Your task to perform on an android device: Open CNN.com Image 0: 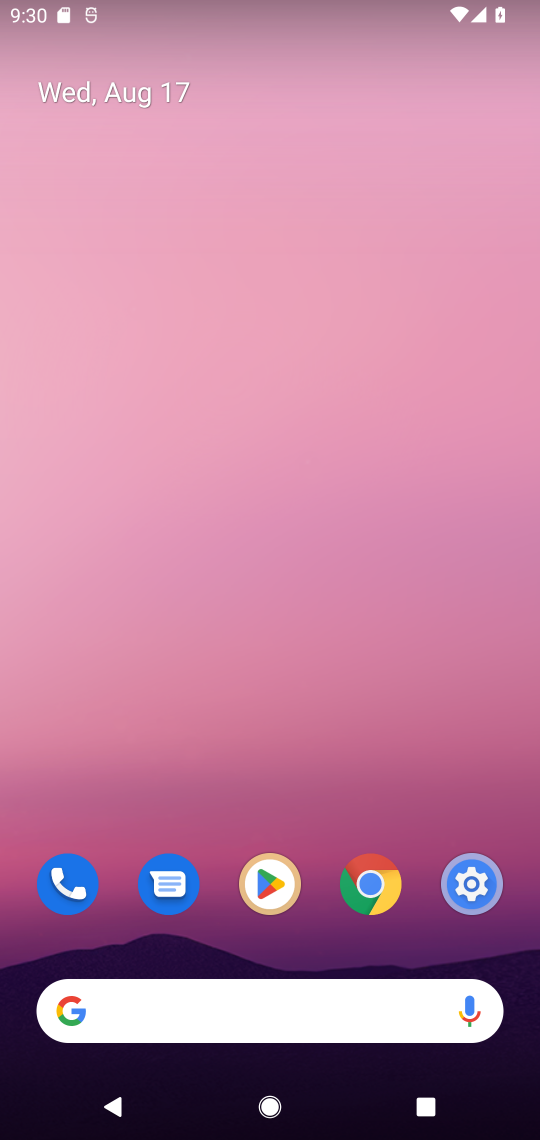
Step 0: click (159, 1006)
Your task to perform on an android device: Open CNN.com Image 1: 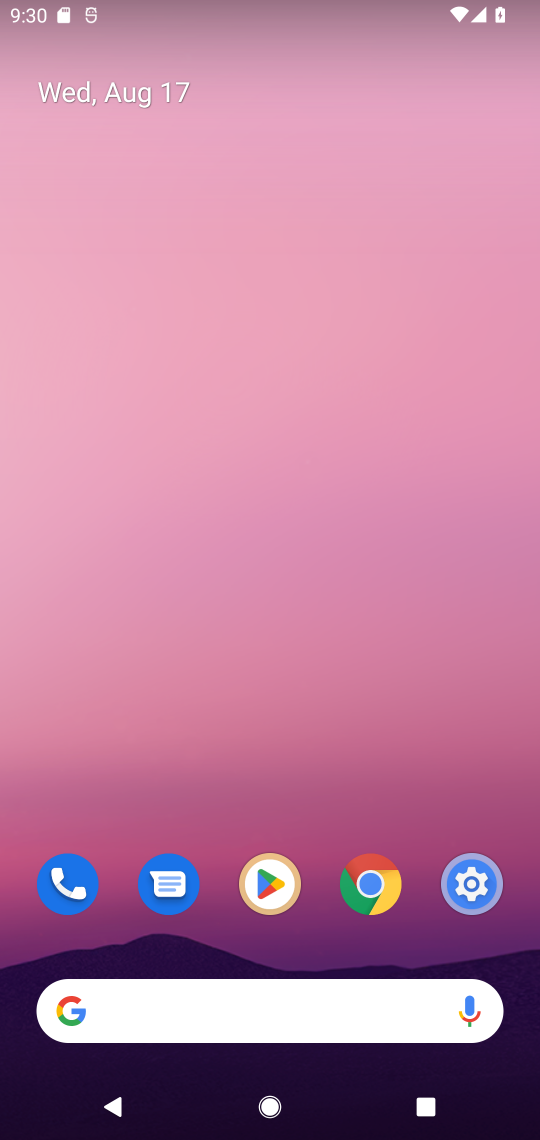
Step 1: click (158, 1008)
Your task to perform on an android device: Open CNN.com Image 2: 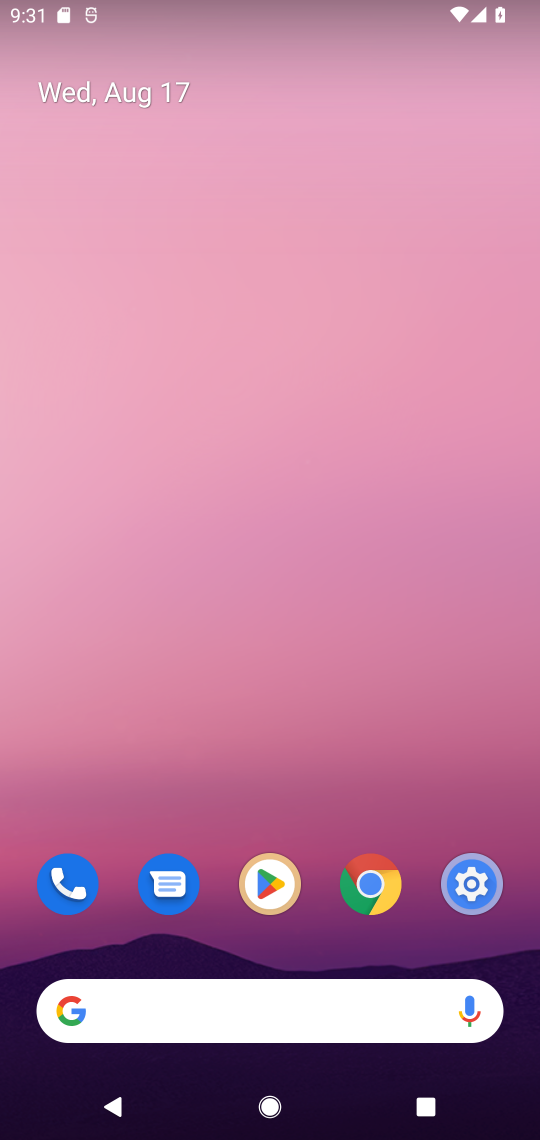
Step 2: click (158, 1008)
Your task to perform on an android device: Open CNN.com Image 3: 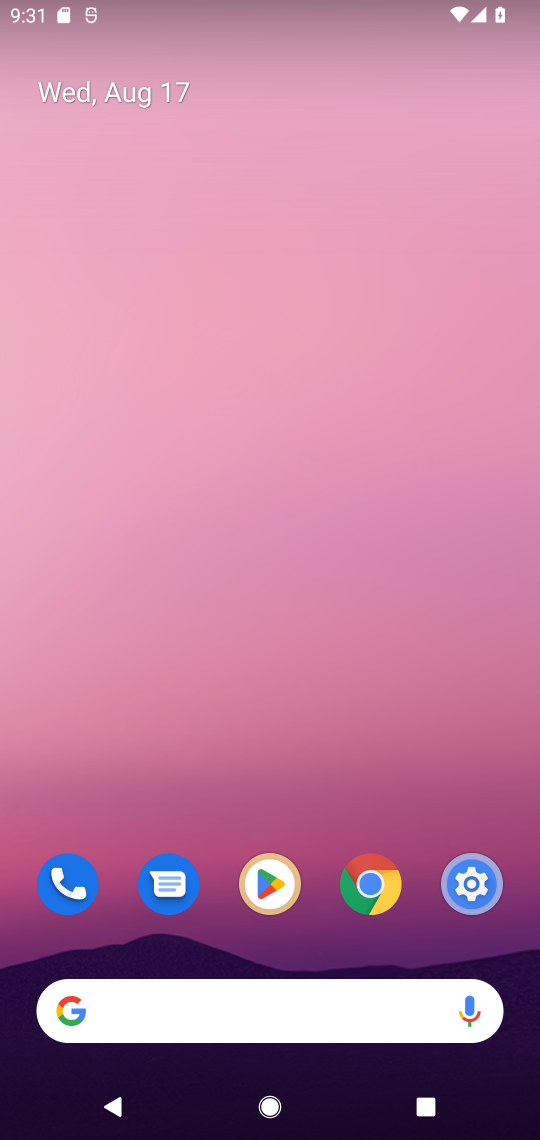
Step 3: click (158, 1008)
Your task to perform on an android device: Open CNN.com Image 4: 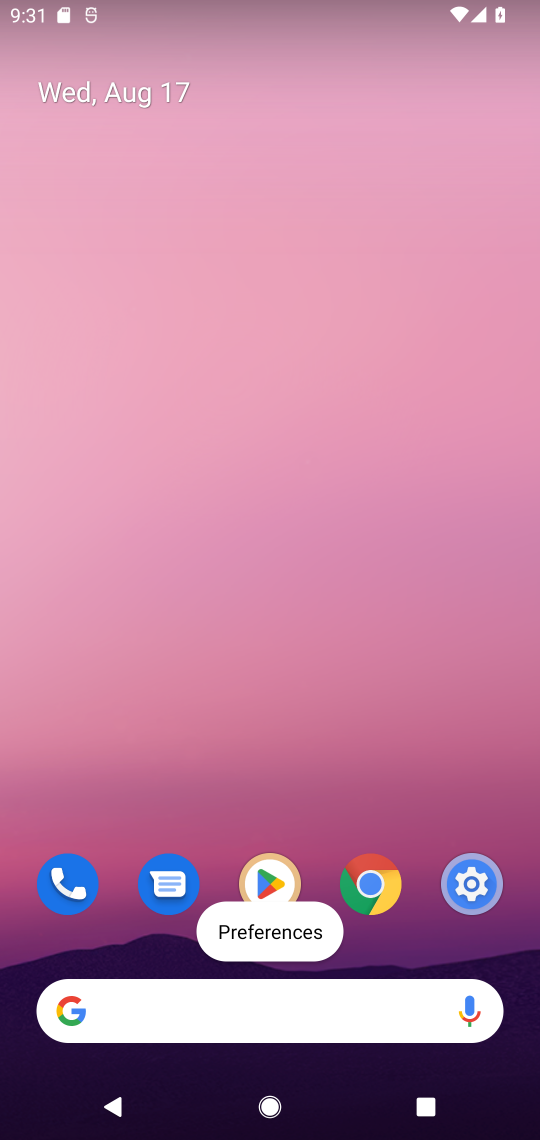
Step 4: click (158, 1008)
Your task to perform on an android device: Open CNN.com Image 5: 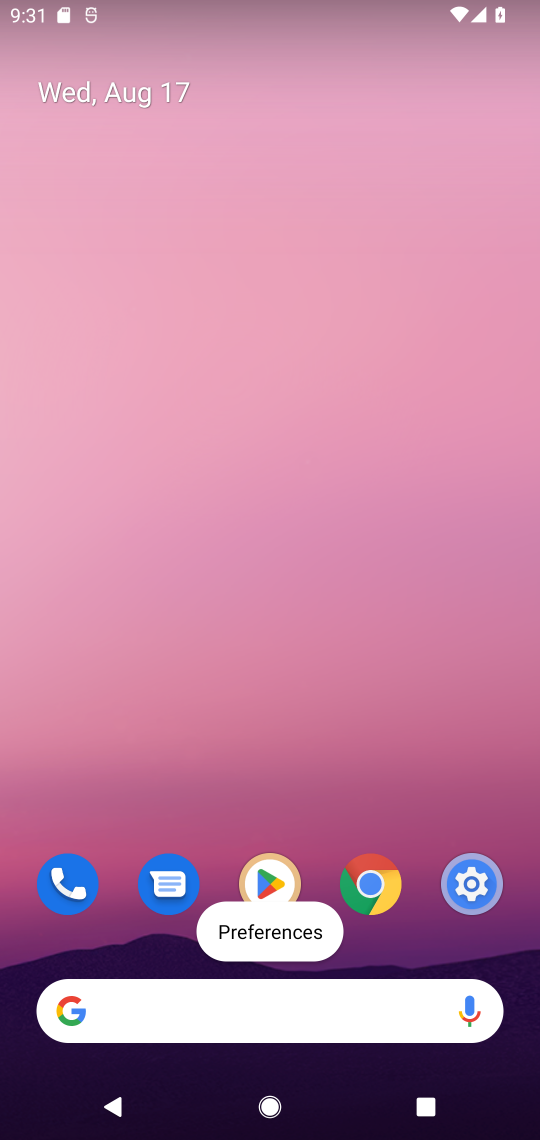
Step 5: click (247, 1017)
Your task to perform on an android device: Open CNN.com Image 6: 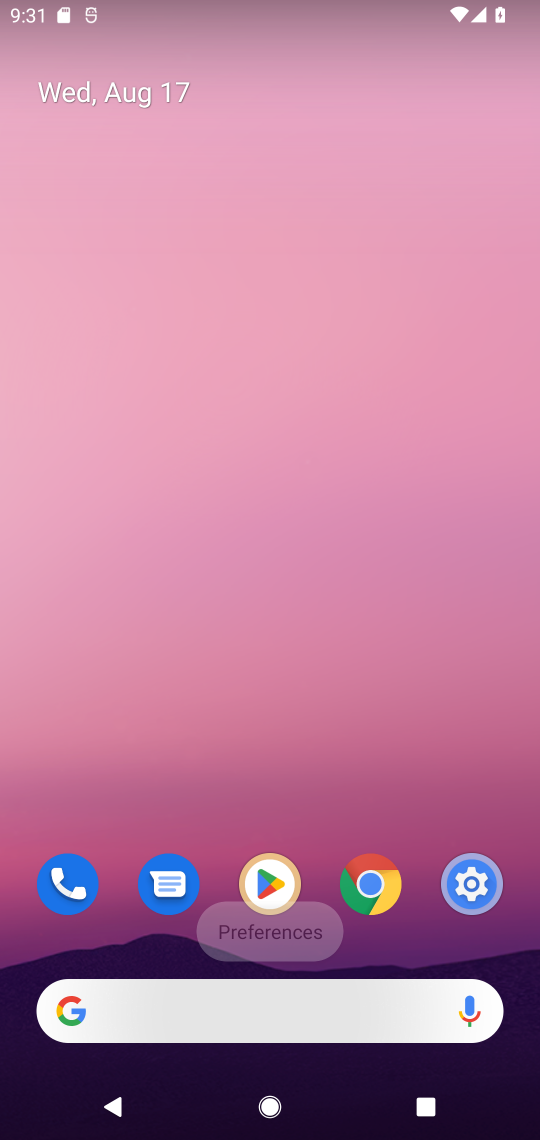
Step 6: click (247, 1017)
Your task to perform on an android device: Open CNN.com Image 7: 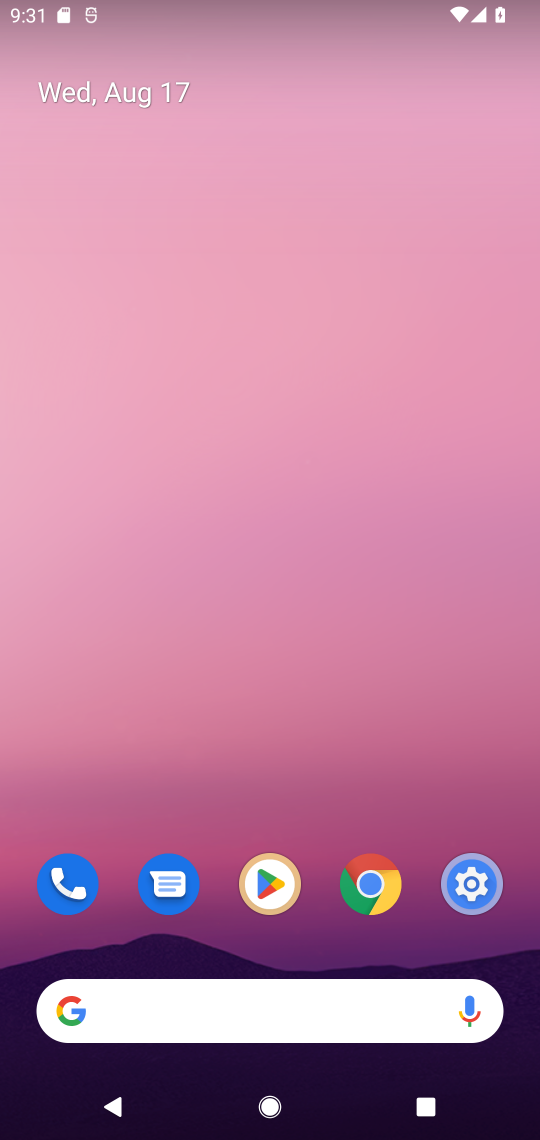
Step 7: click (247, 1017)
Your task to perform on an android device: Open CNN.com Image 8: 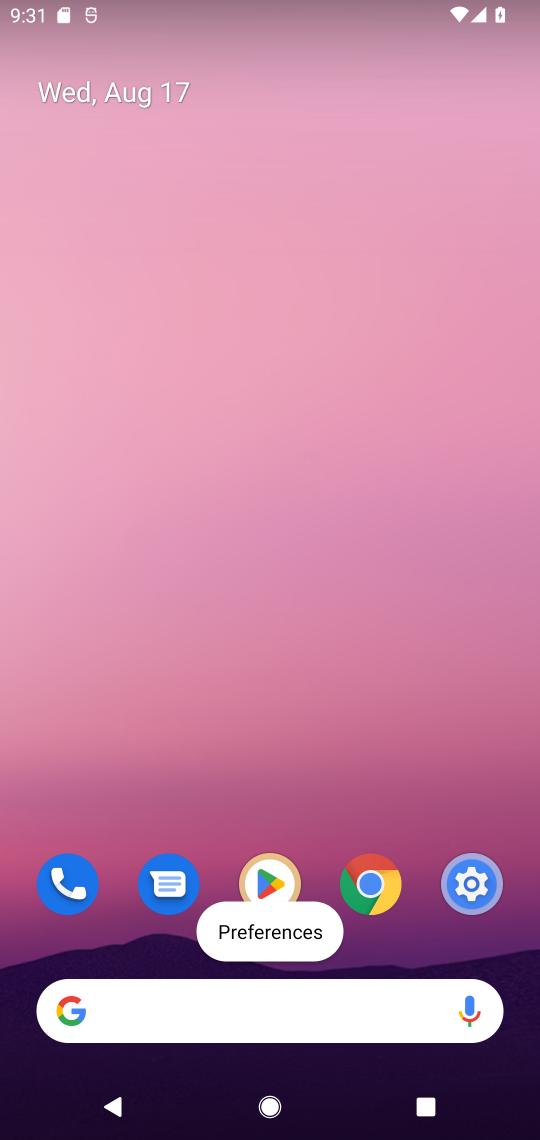
Step 8: click (394, 893)
Your task to perform on an android device: Open CNN.com Image 9: 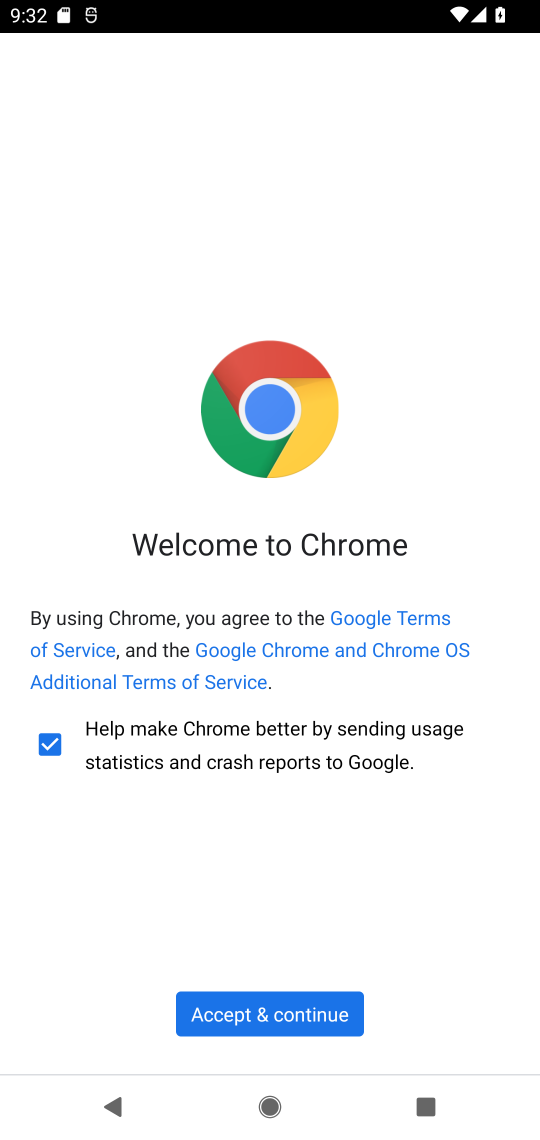
Step 9: click (255, 1015)
Your task to perform on an android device: Open CNN.com Image 10: 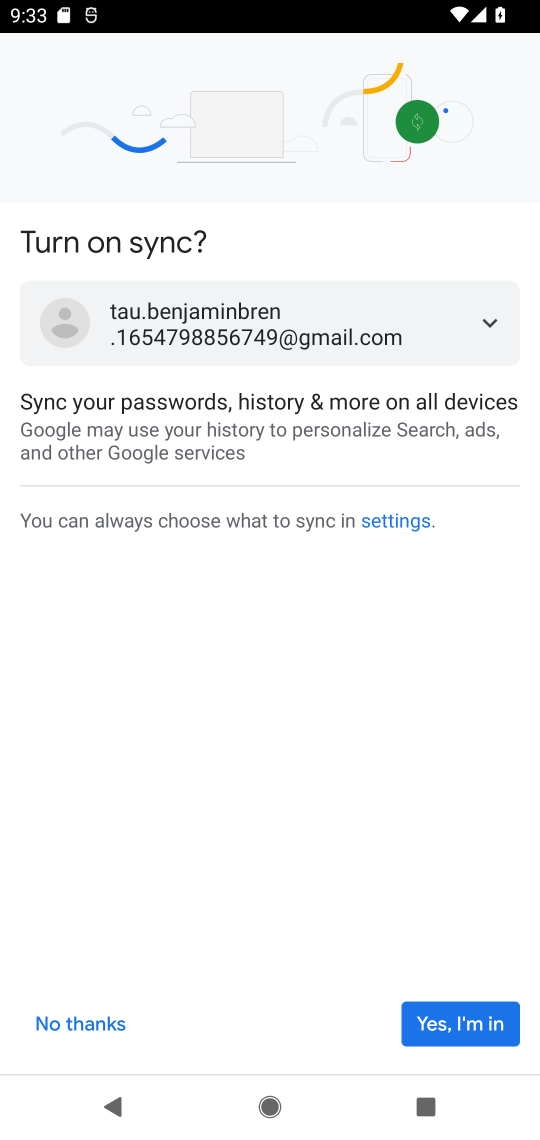
Step 10: click (483, 1012)
Your task to perform on an android device: Open CNN.com Image 11: 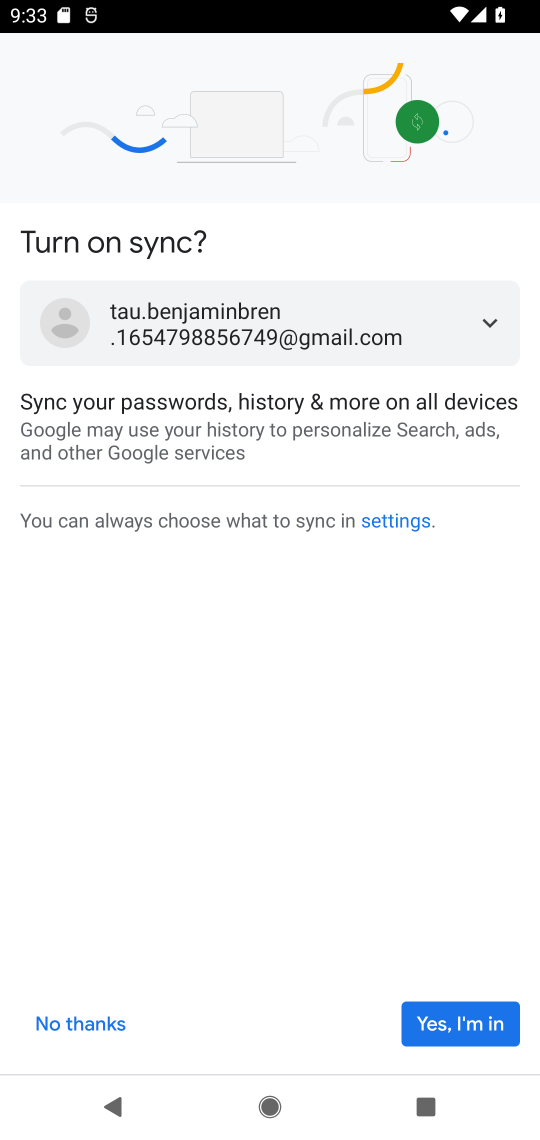
Step 11: click (483, 1012)
Your task to perform on an android device: Open CNN.com Image 12: 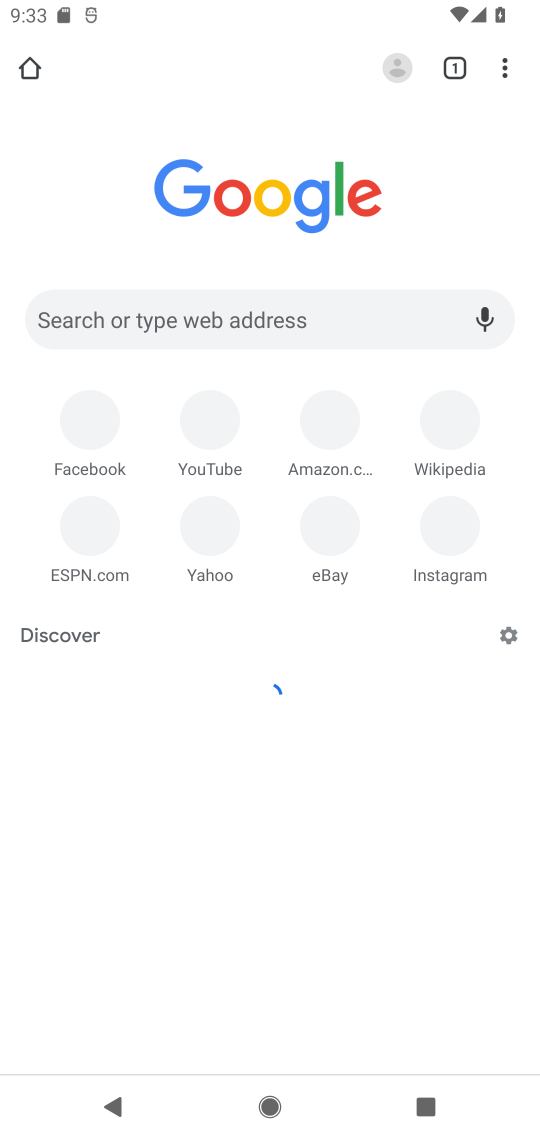
Step 12: click (238, 324)
Your task to perform on an android device: Open CNN.com Image 13: 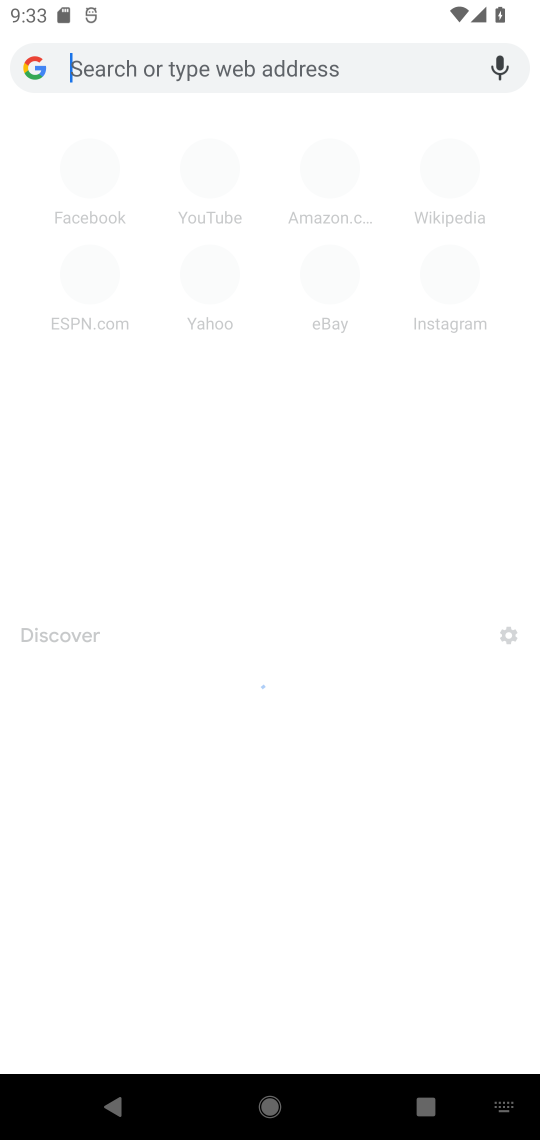
Step 13: type "cnn"
Your task to perform on an android device: Open CNN.com Image 14: 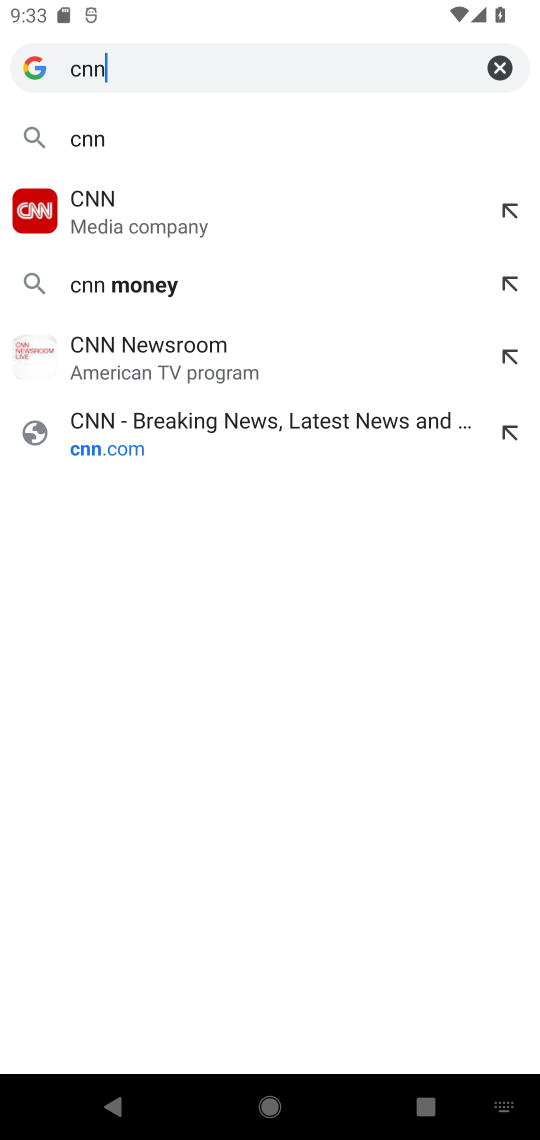
Step 14: click (337, 239)
Your task to perform on an android device: Open CNN.com Image 15: 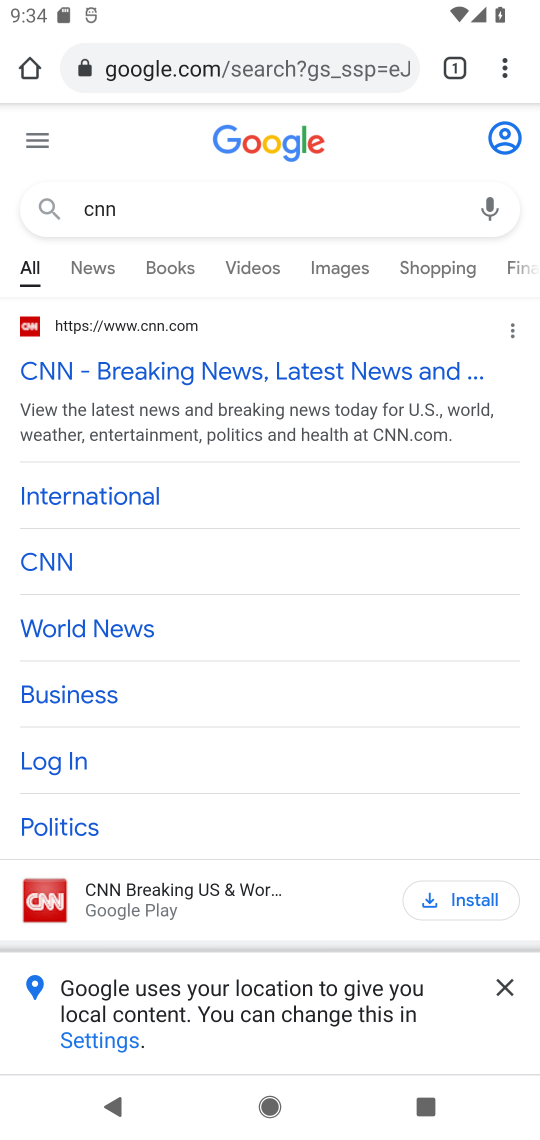
Step 15: click (217, 371)
Your task to perform on an android device: Open CNN.com Image 16: 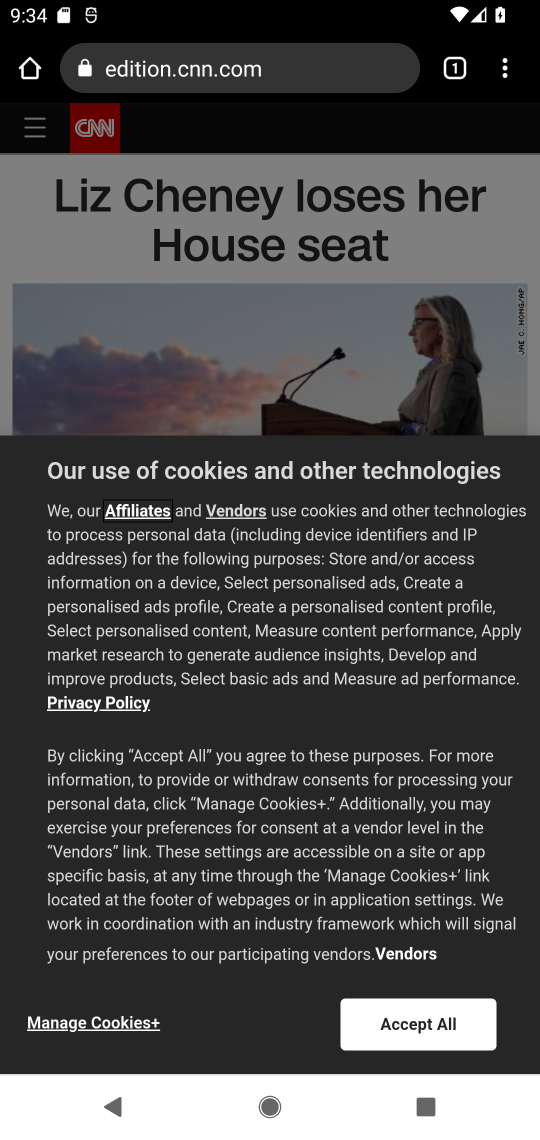
Step 16: task complete